Your task to perform on an android device: Open notification settings Image 0: 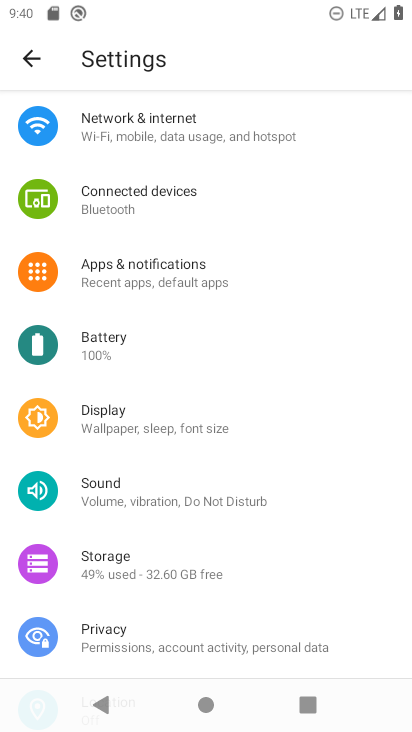
Step 0: press home button
Your task to perform on an android device: Open notification settings Image 1: 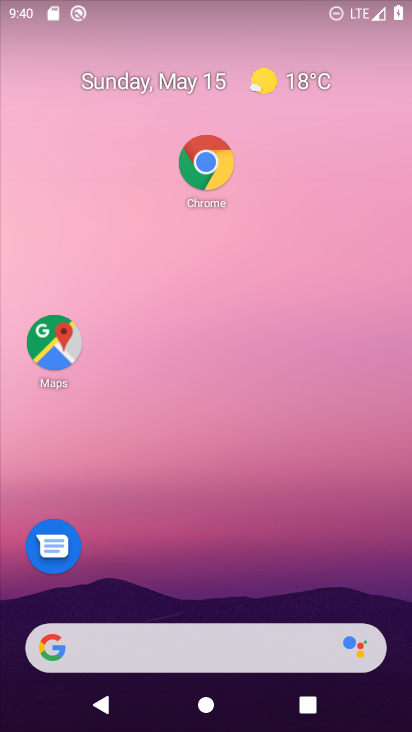
Step 1: click (219, 638)
Your task to perform on an android device: Open notification settings Image 2: 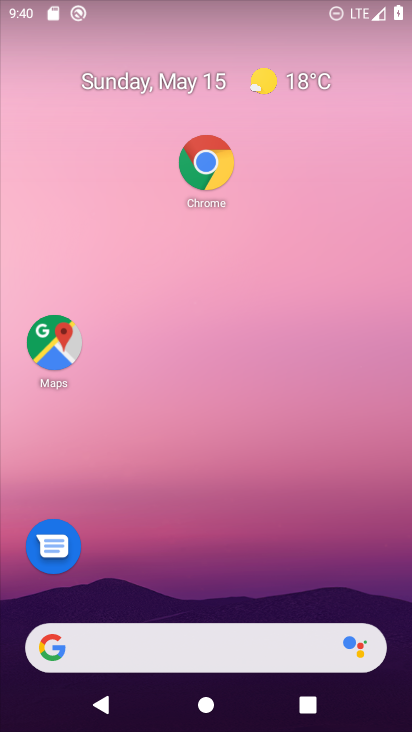
Step 2: drag from (221, 628) to (263, 220)
Your task to perform on an android device: Open notification settings Image 3: 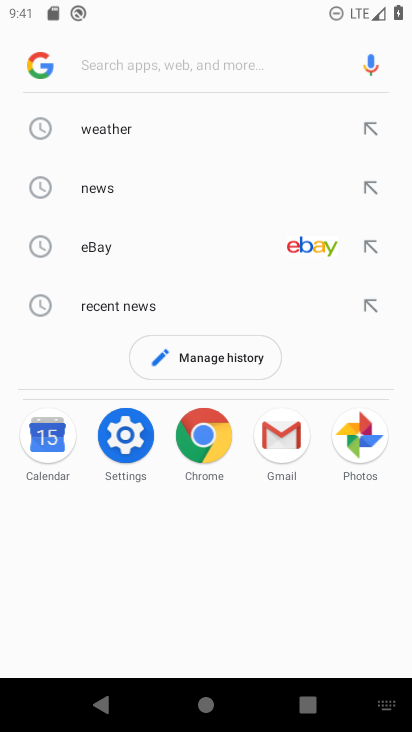
Step 3: press home button
Your task to perform on an android device: Open notification settings Image 4: 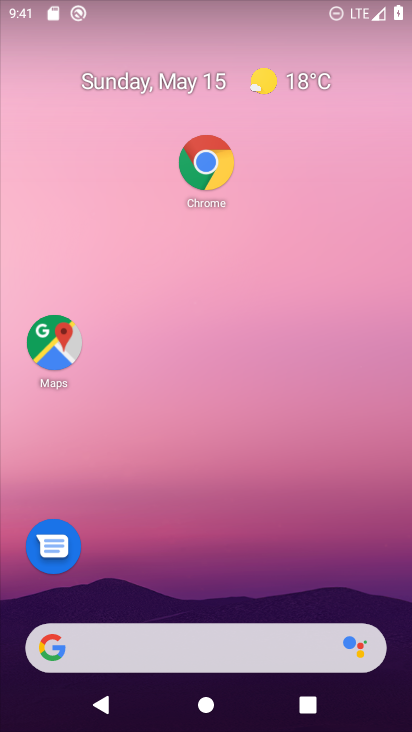
Step 4: drag from (230, 517) to (278, 109)
Your task to perform on an android device: Open notification settings Image 5: 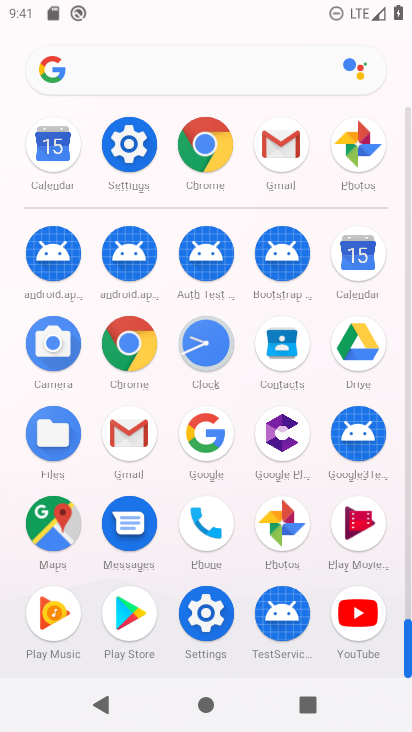
Step 5: click (132, 140)
Your task to perform on an android device: Open notification settings Image 6: 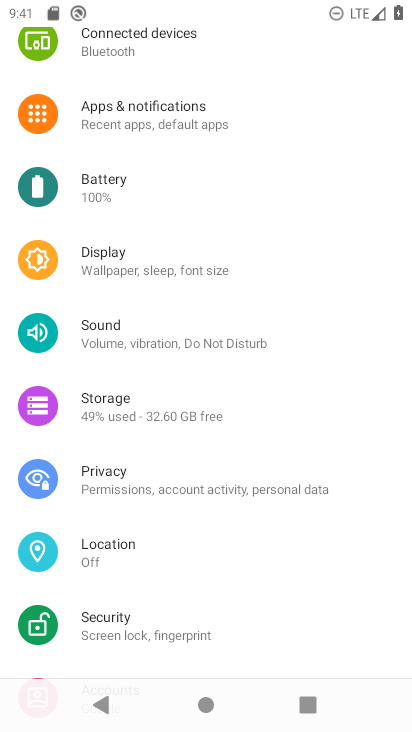
Step 6: click (153, 109)
Your task to perform on an android device: Open notification settings Image 7: 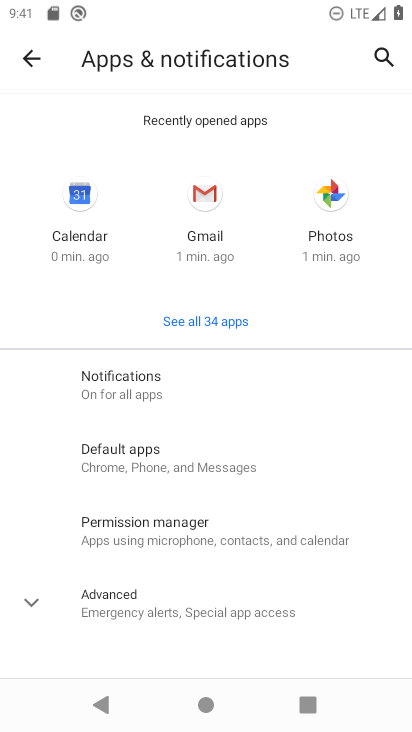
Step 7: click (124, 393)
Your task to perform on an android device: Open notification settings Image 8: 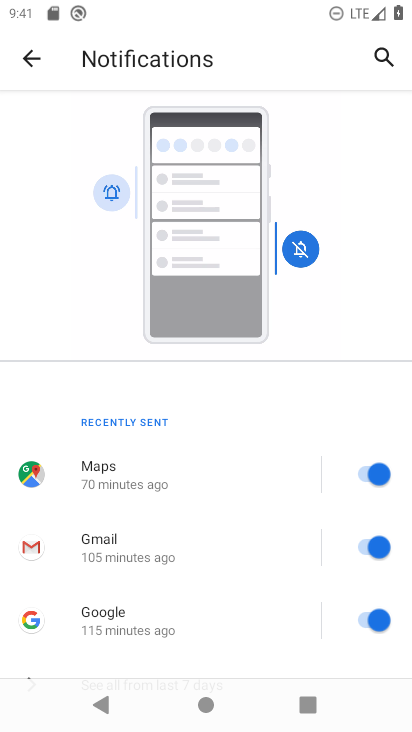
Step 8: task complete